Your task to perform on an android device: check the backup settings in the google photos Image 0: 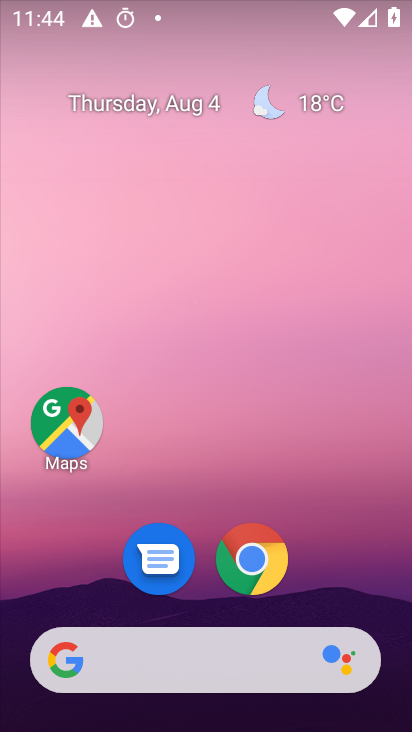
Step 0: drag from (17, 696) to (70, 348)
Your task to perform on an android device: check the backup settings in the google photos Image 1: 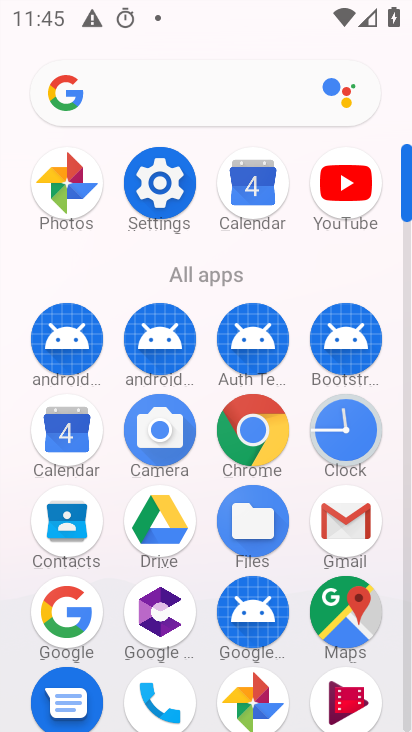
Step 1: click (66, 201)
Your task to perform on an android device: check the backup settings in the google photos Image 2: 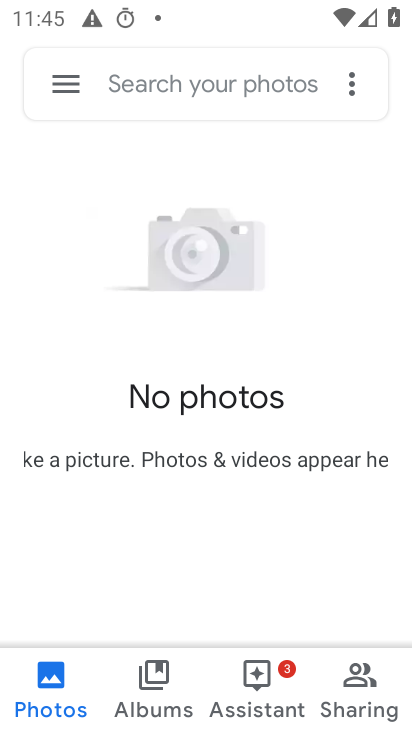
Step 2: task complete